Your task to perform on an android device: all mails in gmail Image 0: 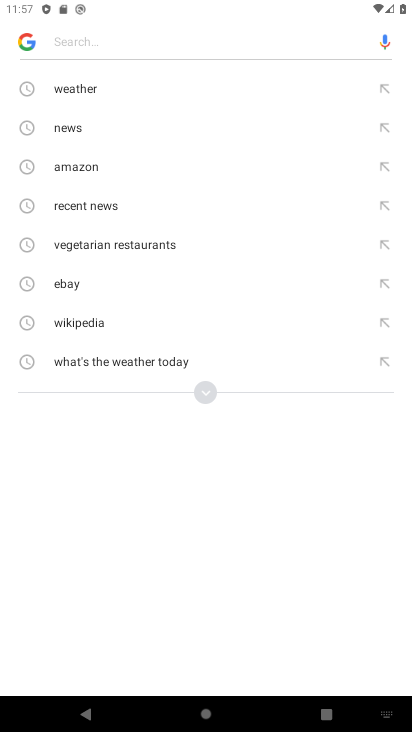
Step 0: press back button
Your task to perform on an android device: all mails in gmail Image 1: 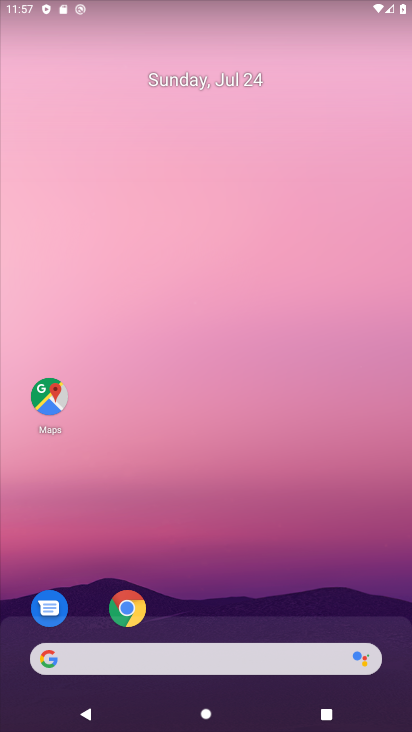
Step 1: drag from (288, 319) to (308, 39)
Your task to perform on an android device: all mails in gmail Image 2: 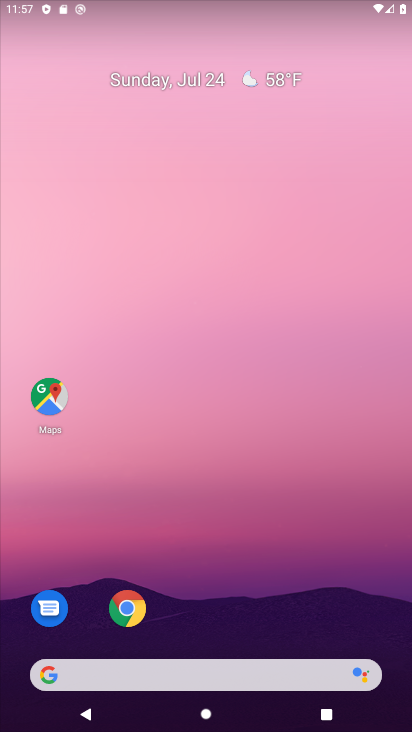
Step 2: drag from (220, 581) to (370, 0)
Your task to perform on an android device: all mails in gmail Image 3: 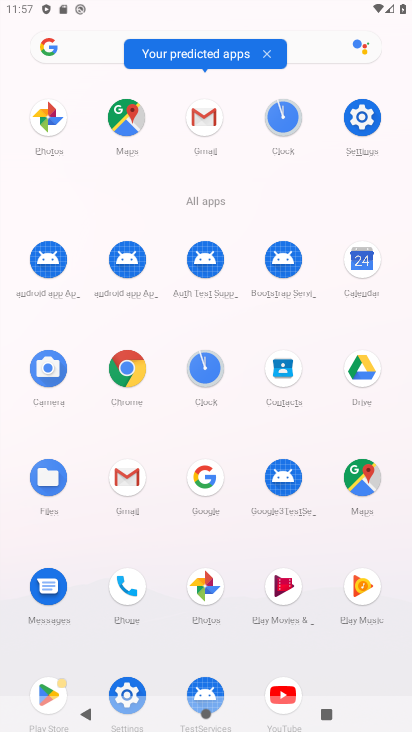
Step 3: click (203, 143)
Your task to perform on an android device: all mails in gmail Image 4: 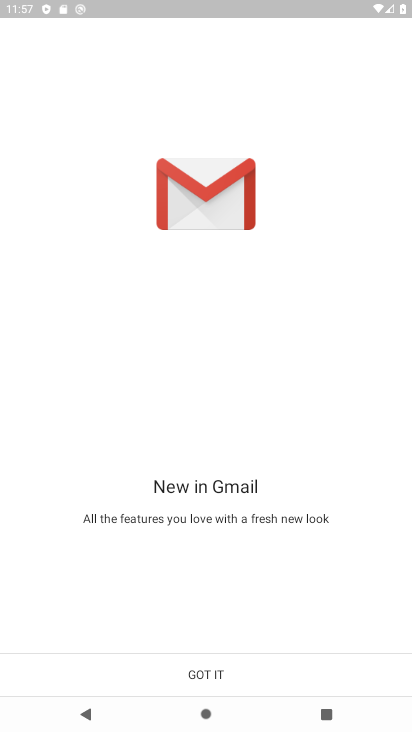
Step 4: click (194, 664)
Your task to perform on an android device: all mails in gmail Image 5: 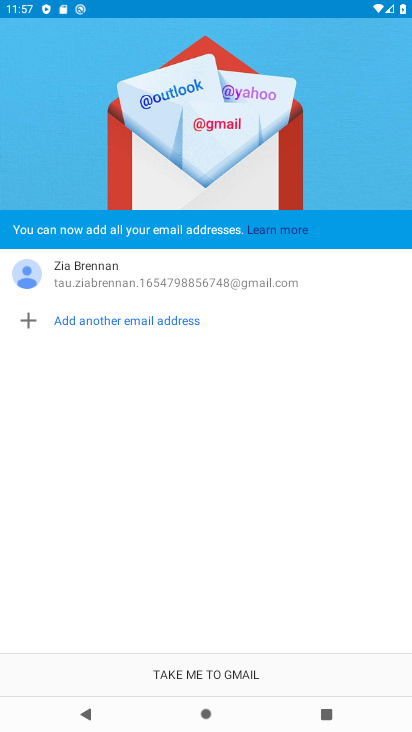
Step 5: click (189, 673)
Your task to perform on an android device: all mails in gmail Image 6: 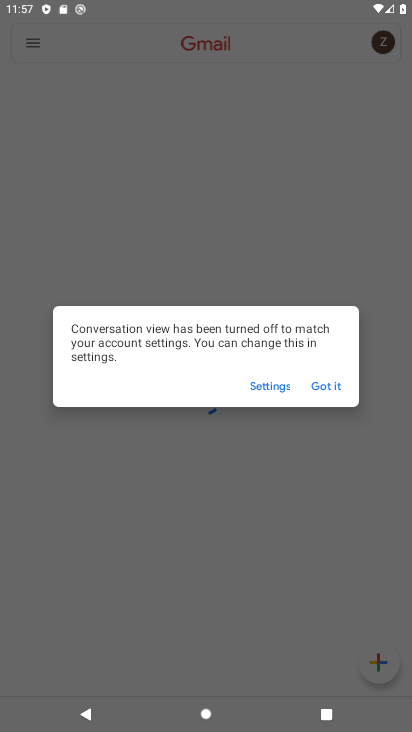
Step 6: click (328, 387)
Your task to perform on an android device: all mails in gmail Image 7: 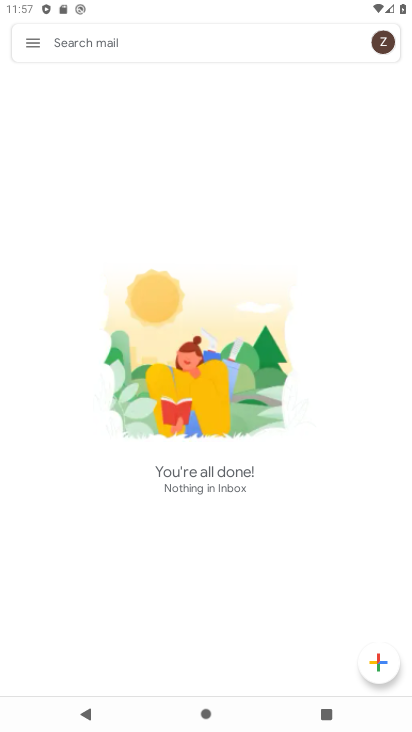
Step 7: click (33, 43)
Your task to perform on an android device: all mails in gmail Image 8: 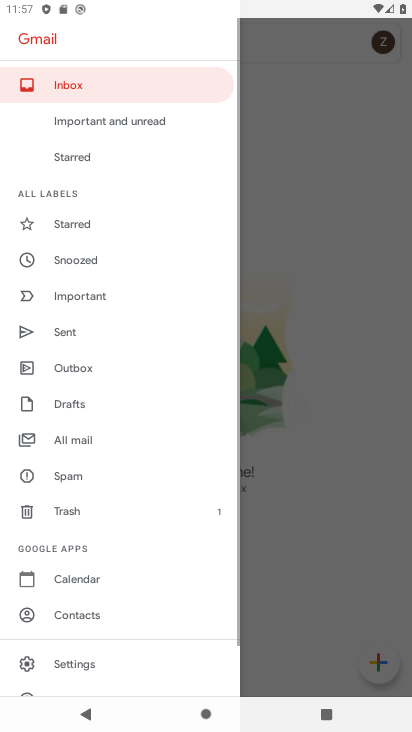
Step 8: click (96, 442)
Your task to perform on an android device: all mails in gmail Image 9: 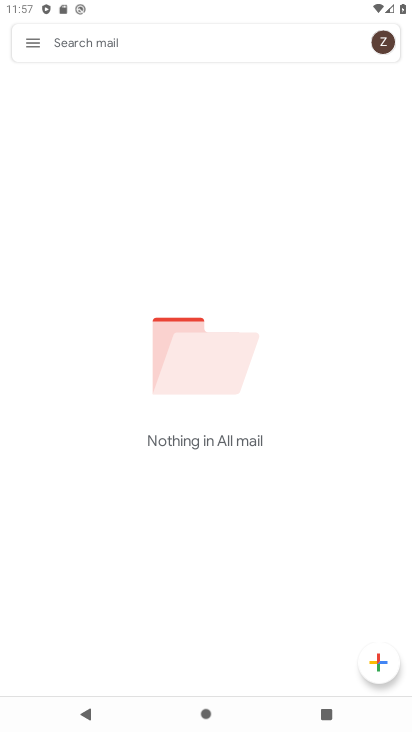
Step 9: task complete